Your task to perform on an android device: stop showing notifications on the lock screen Image 0: 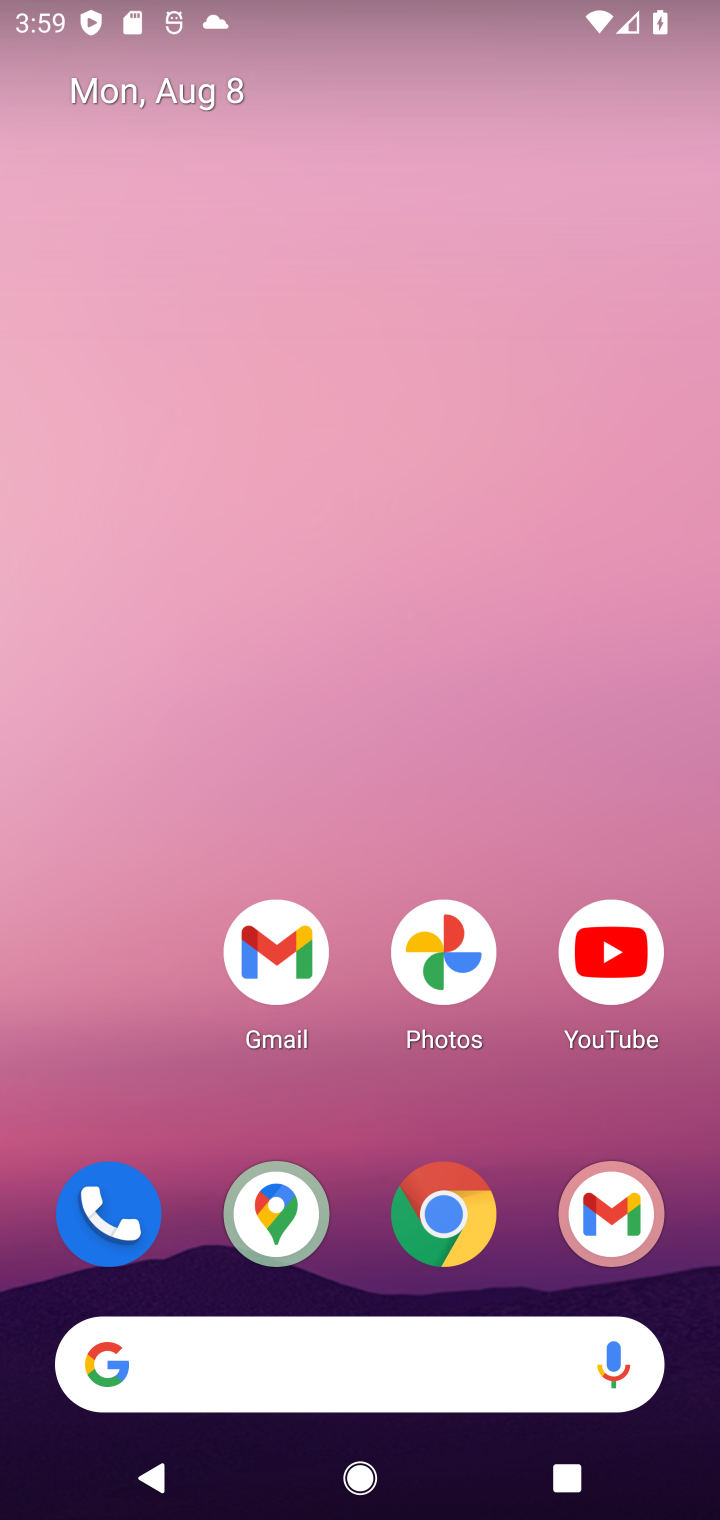
Step 0: drag from (359, 1139) to (349, 31)
Your task to perform on an android device: stop showing notifications on the lock screen Image 1: 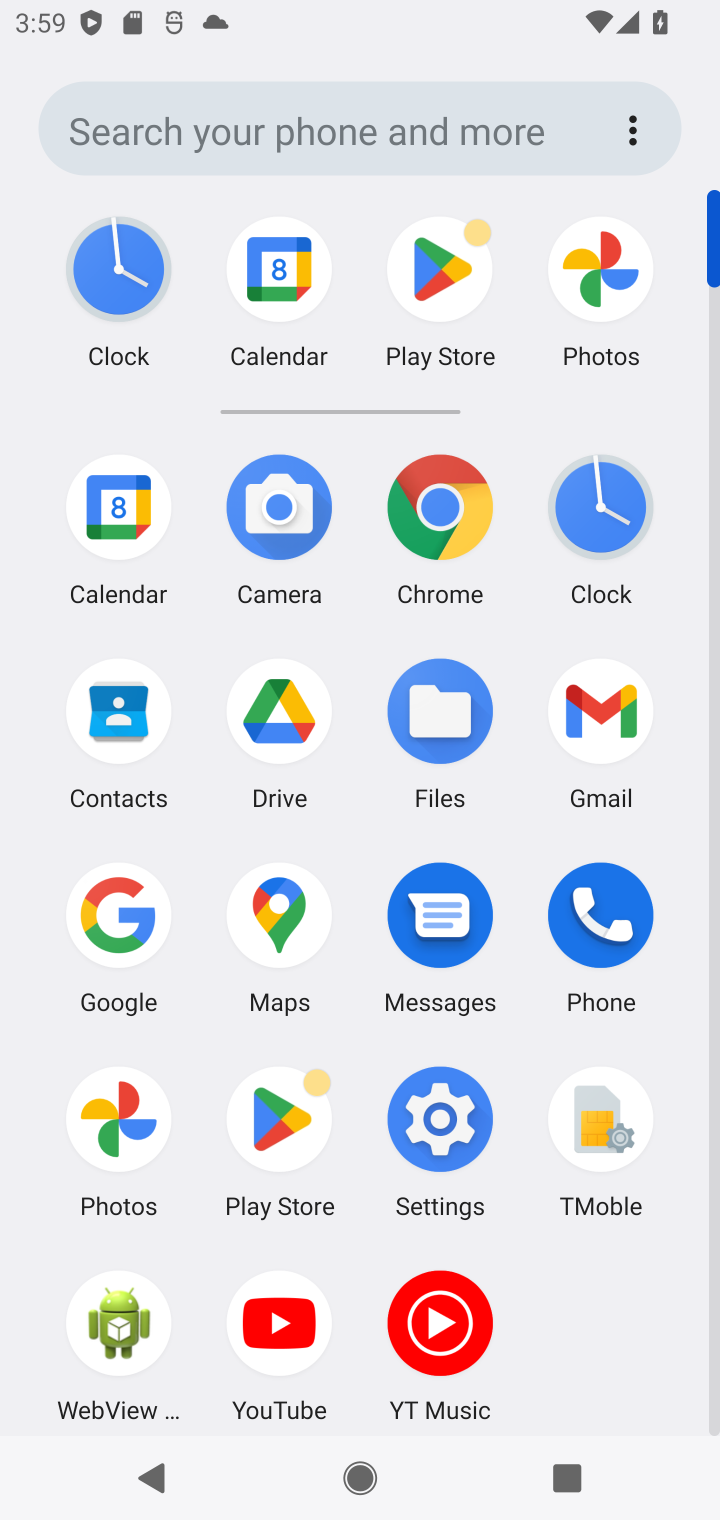
Step 1: click (427, 1117)
Your task to perform on an android device: stop showing notifications on the lock screen Image 2: 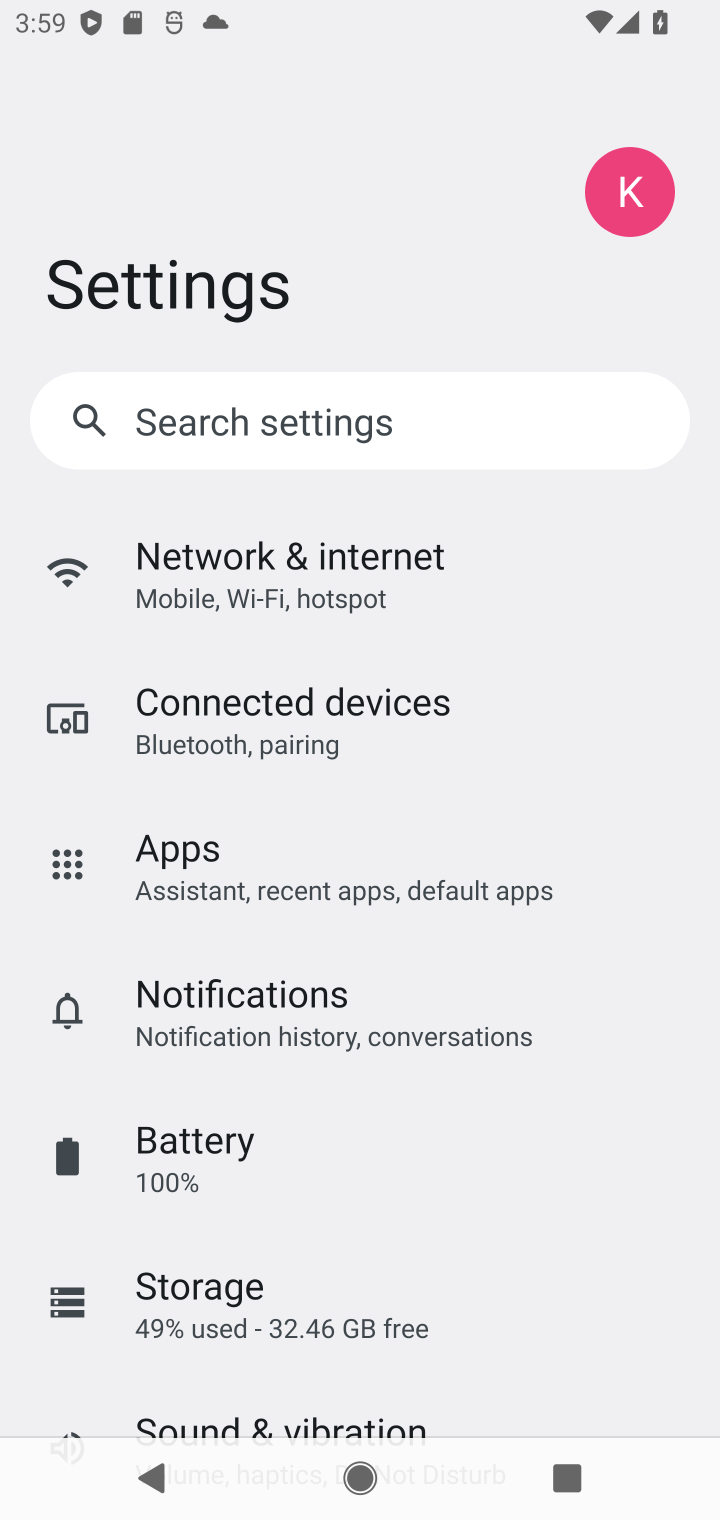
Step 2: click (202, 1043)
Your task to perform on an android device: stop showing notifications on the lock screen Image 3: 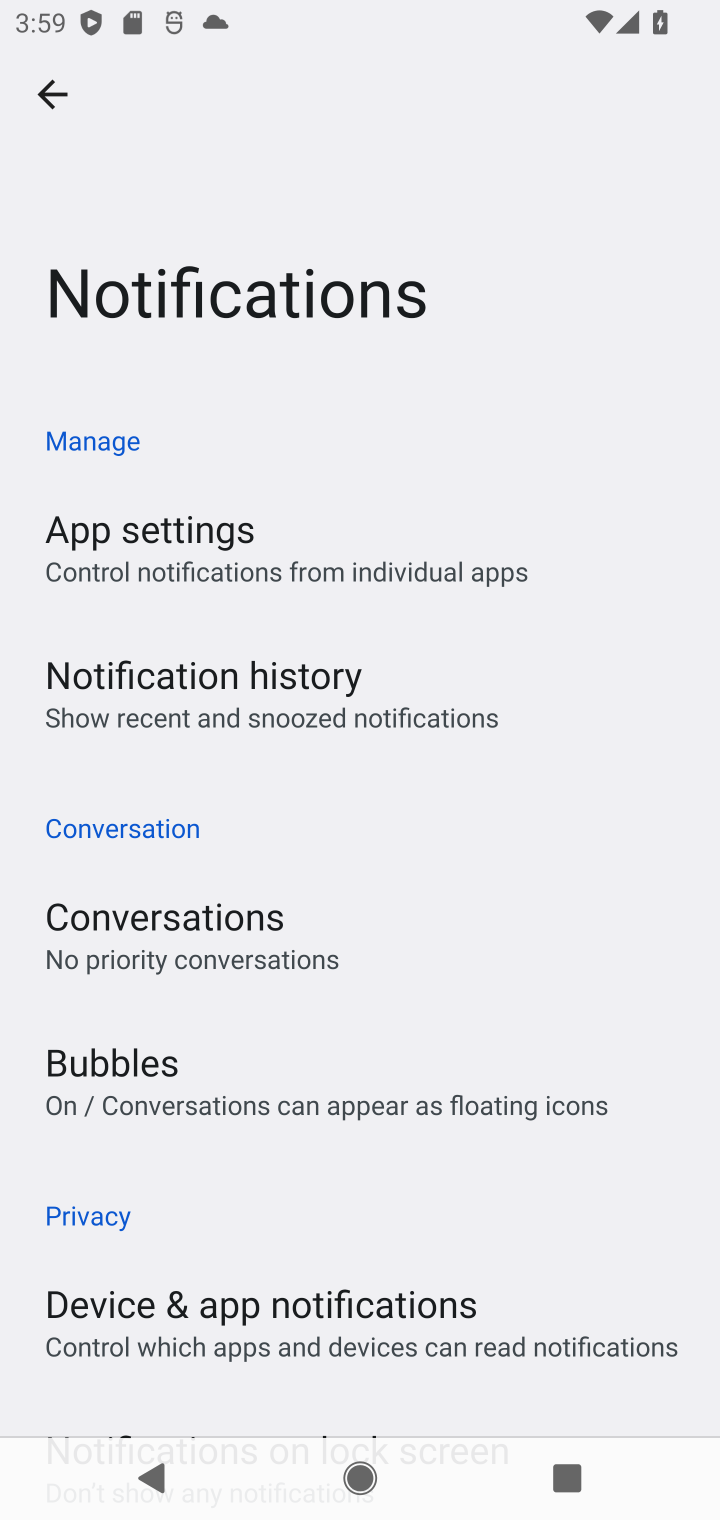
Step 3: drag from (202, 1256) to (217, 506)
Your task to perform on an android device: stop showing notifications on the lock screen Image 4: 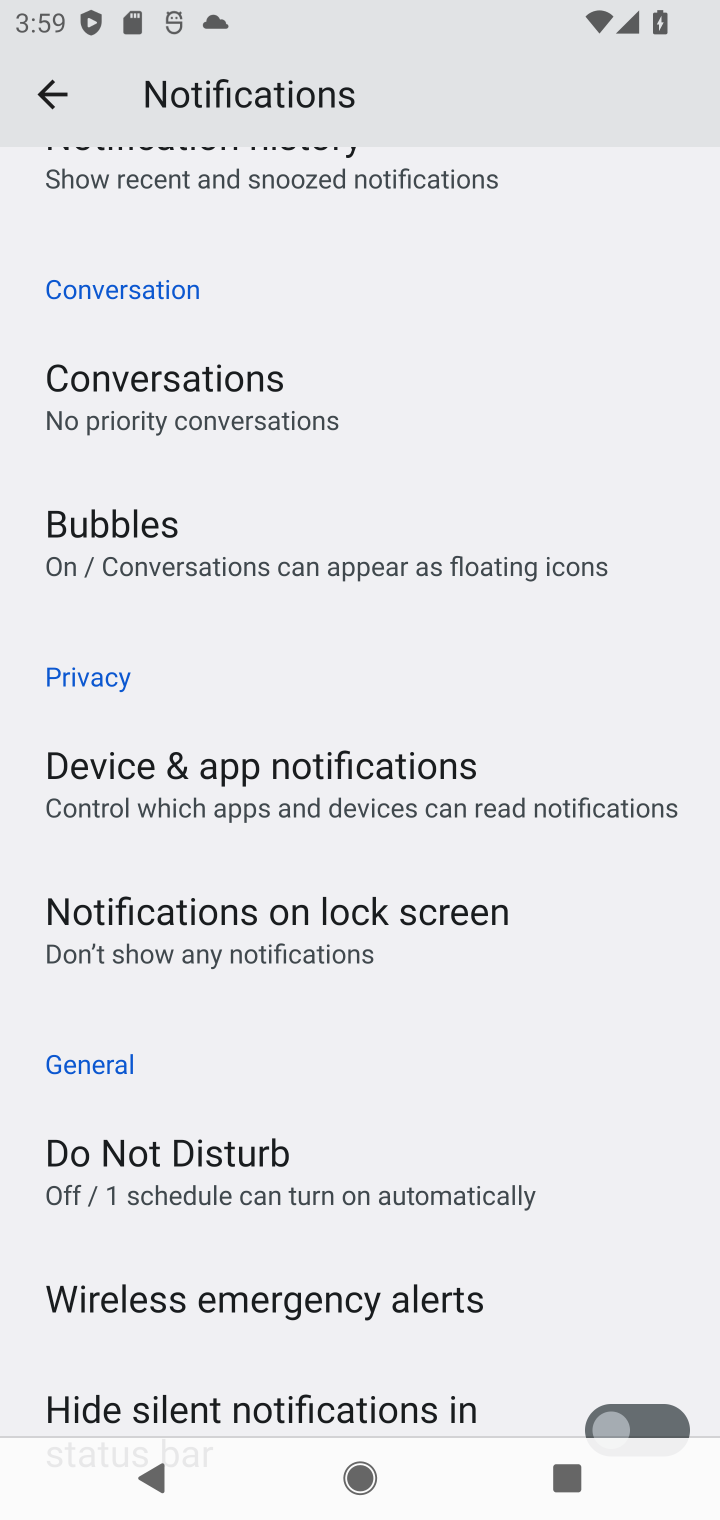
Step 4: drag from (336, 1243) to (360, 875)
Your task to perform on an android device: stop showing notifications on the lock screen Image 5: 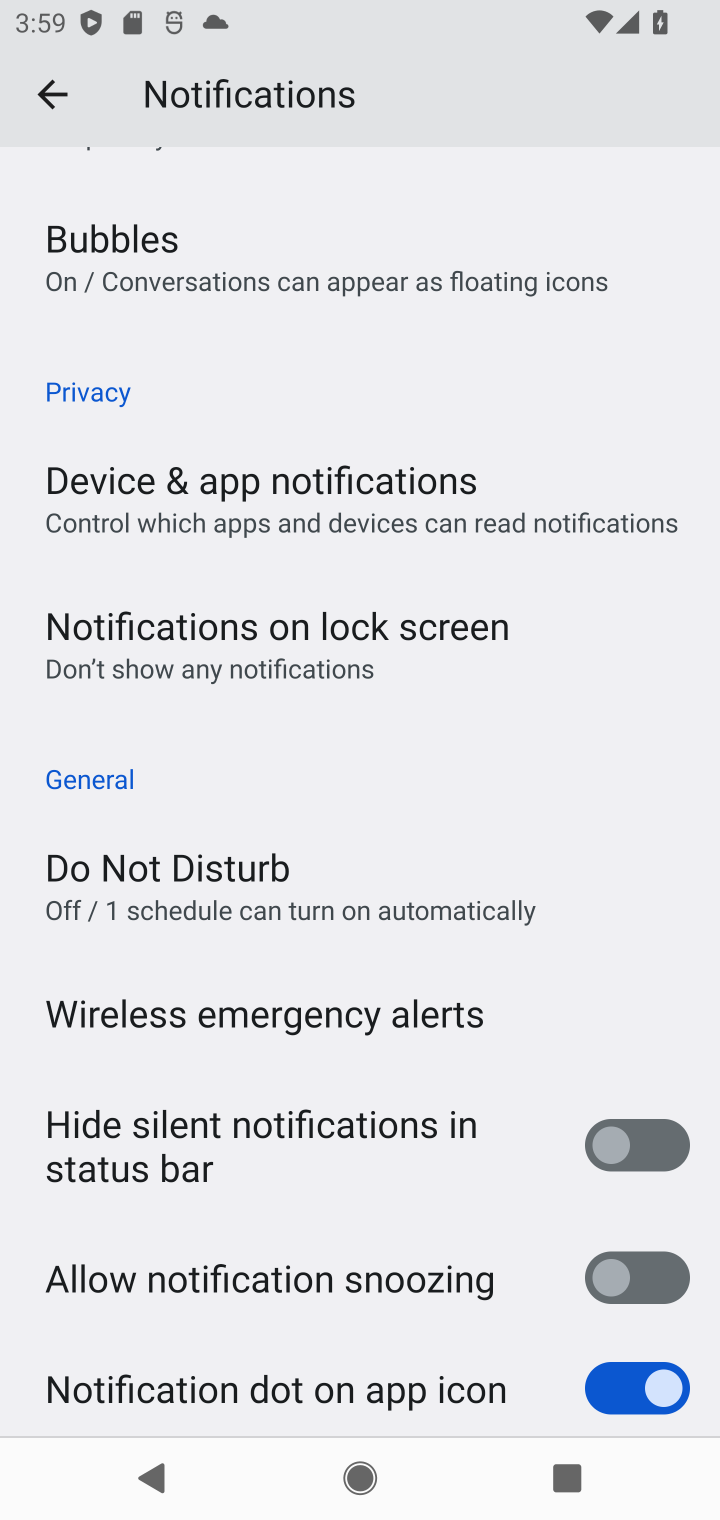
Step 5: click (211, 644)
Your task to perform on an android device: stop showing notifications on the lock screen Image 6: 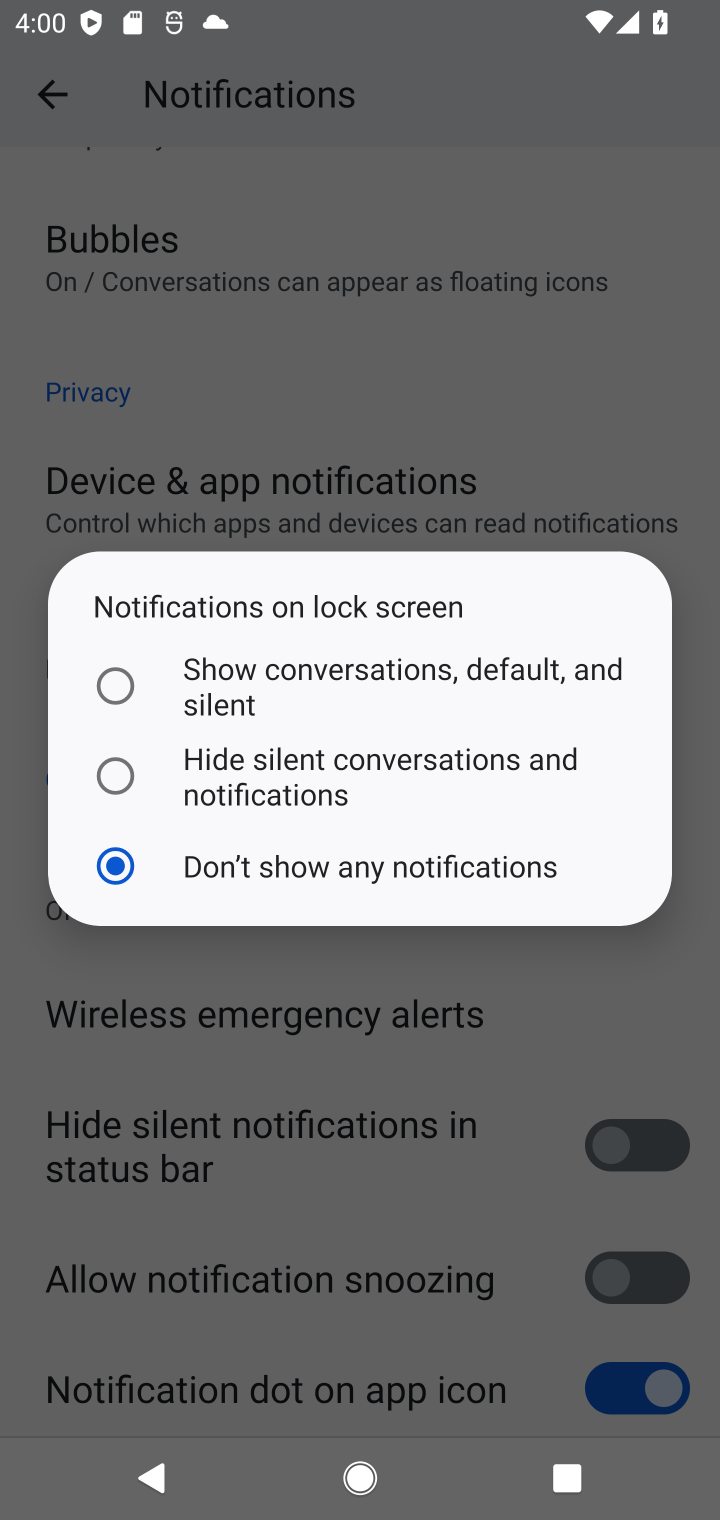
Step 6: click (559, 469)
Your task to perform on an android device: stop showing notifications on the lock screen Image 7: 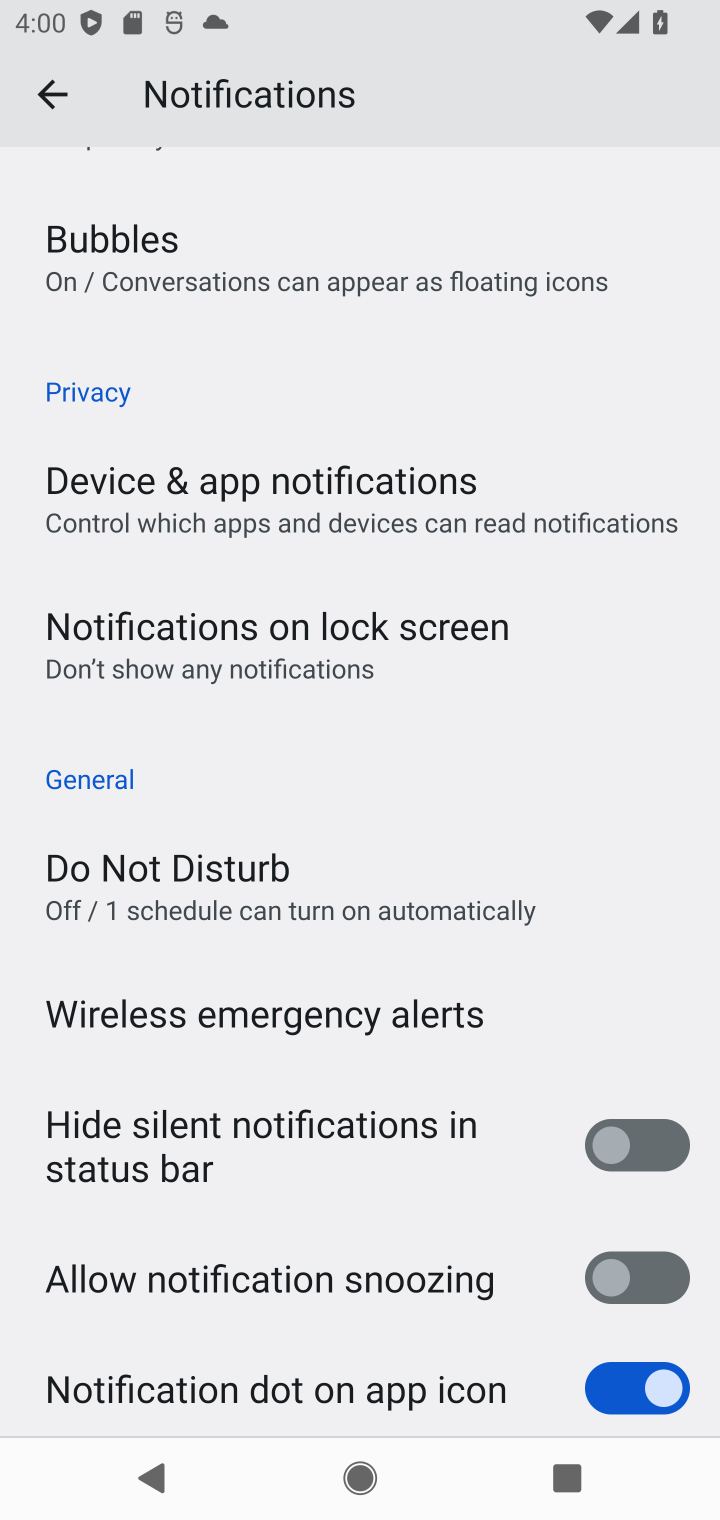
Step 7: task complete